Your task to perform on an android device: delete location history Image 0: 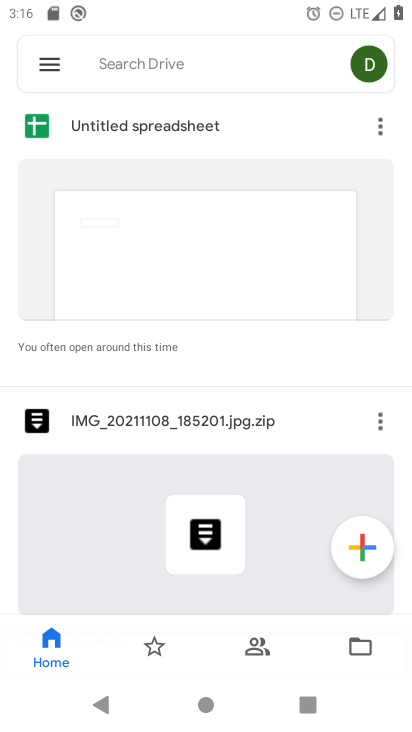
Step 0: press home button
Your task to perform on an android device: delete location history Image 1: 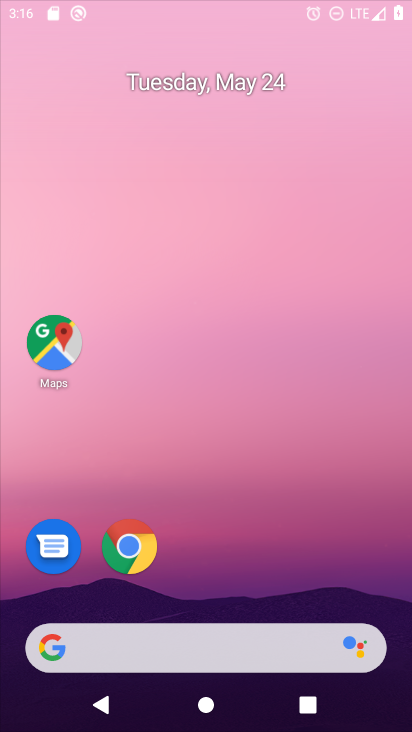
Step 1: drag from (271, 623) to (279, 47)
Your task to perform on an android device: delete location history Image 2: 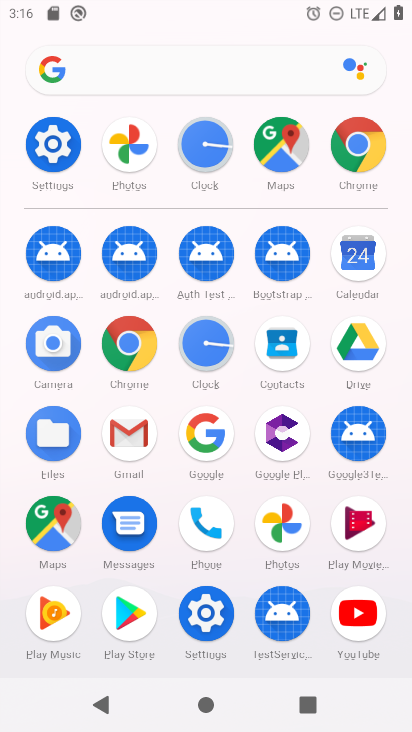
Step 2: click (80, 523)
Your task to perform on an android device: delete location history Image 3: 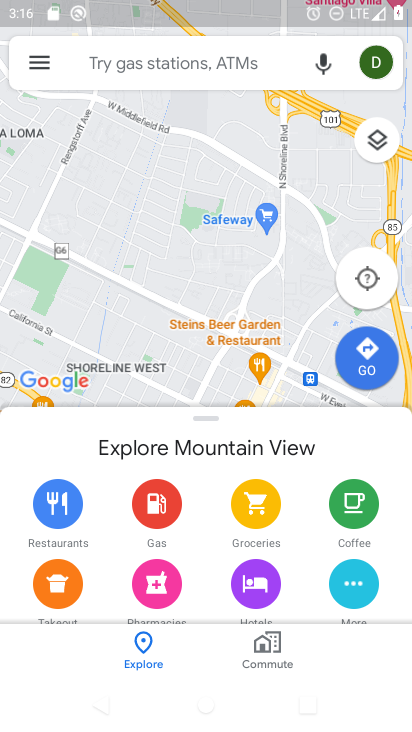
Step 3: click (42, 65)
Your task to perform on an android device: delete location history Image 4: 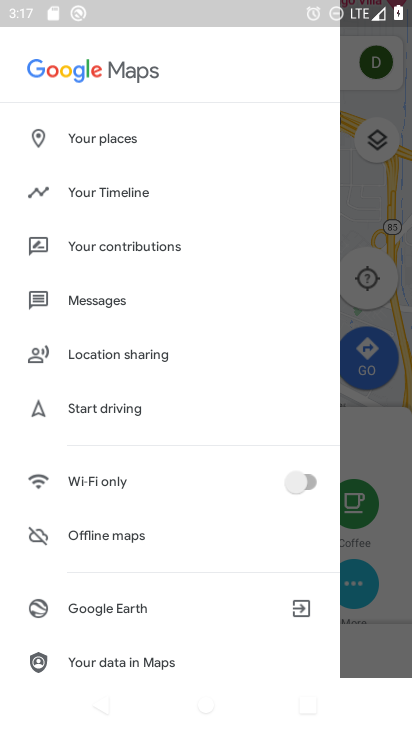
Step 4: click (107, 188)
Your task to perform on an android device: delete location history Image 5: 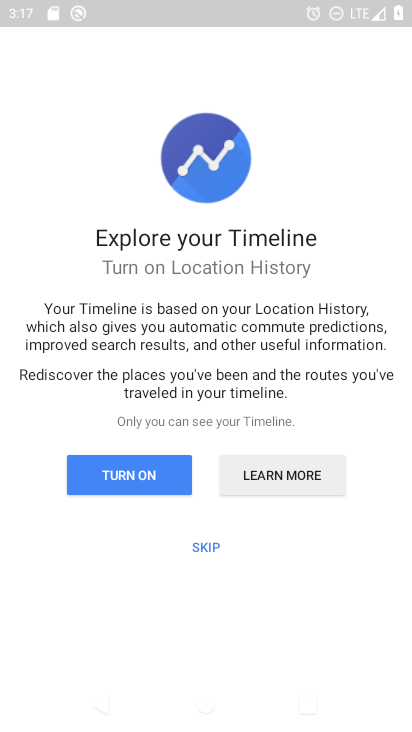
Step 5: click (198, 548)
Your task to perform on an android device: delete location history Image 6: 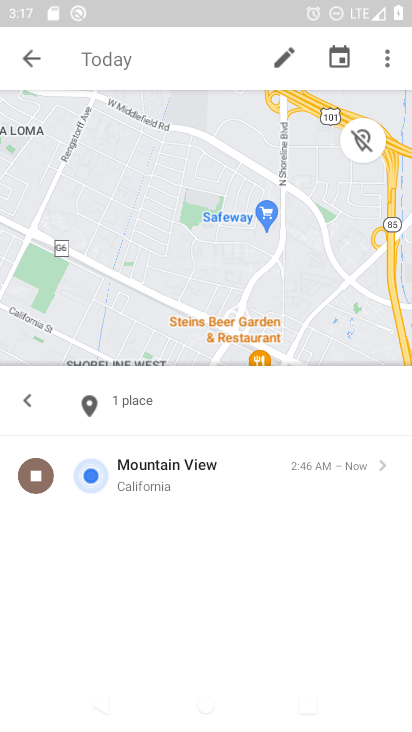
Step 6: click (377, 59)
Your task to perform on an android device: delete location history Image 7: 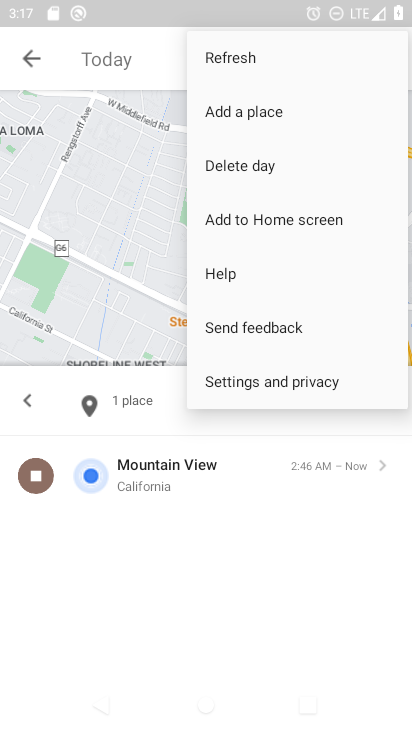
Step 7: click (258, 376)
Your task to perform on an android device: delete location history Image 8: 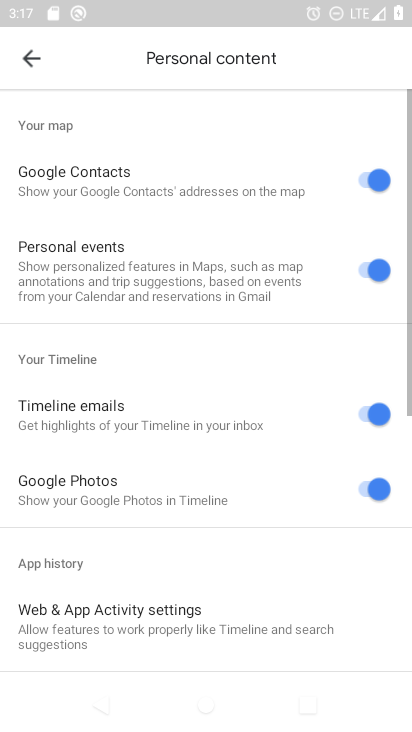
Step 8: drag from (215, 505) to (248, 25)
Your task to perform on an android device: delete location history Image 9: 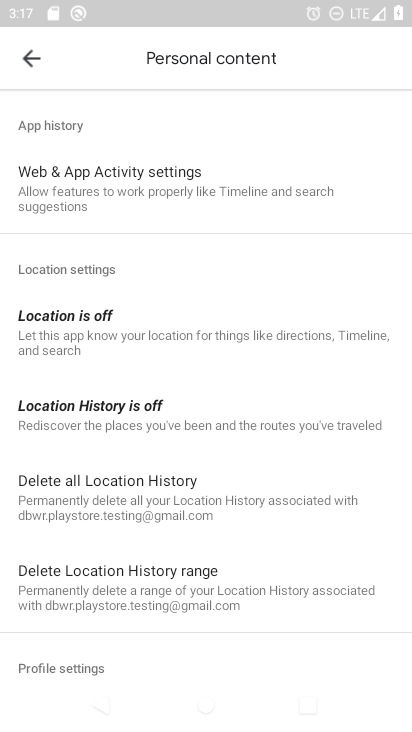
Step 9: click (200, 483)
Your task to perform on an android device: delete location history Image 10: 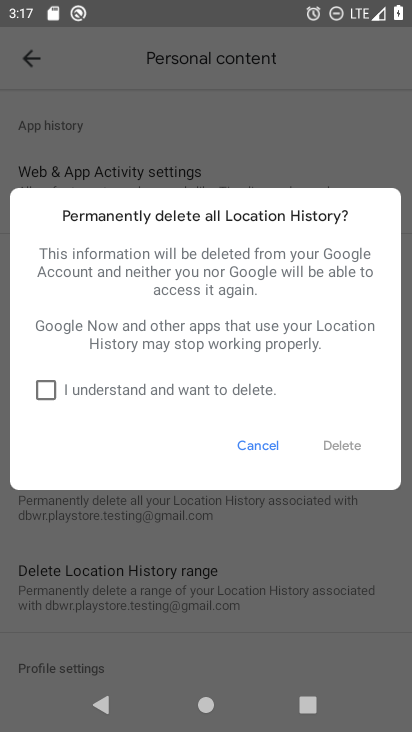
Step 10: click (49, 383)
Your task to perform on an android device: delete location history Image 11: 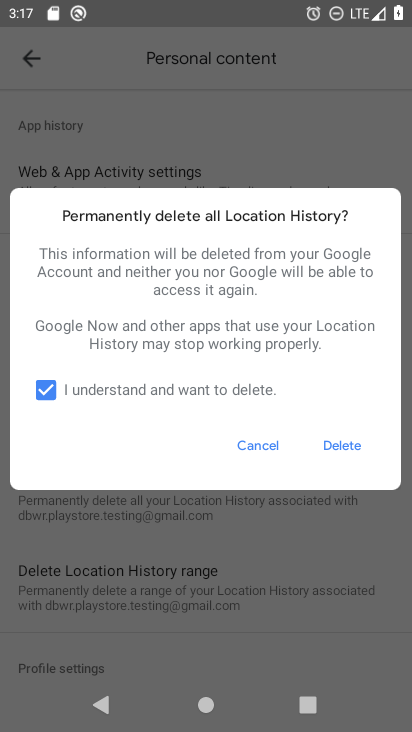
Step 11: click (344, 446)
Your task to perform on an android device: delete location history Image 12: 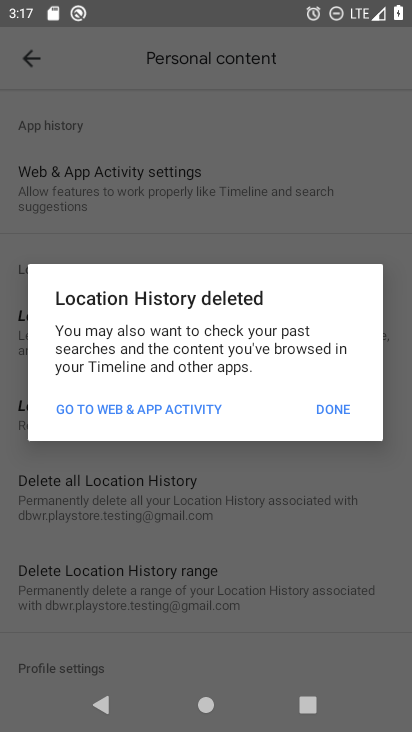
Step 12: click (328, 400)
Your task to perform on an android device: delete location history Image 13: 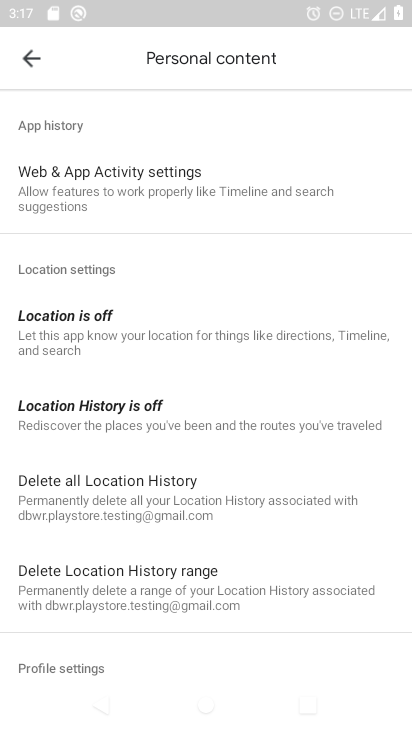
Step 13: task complete